Your task to perform on an android device: Check the news Image 0: 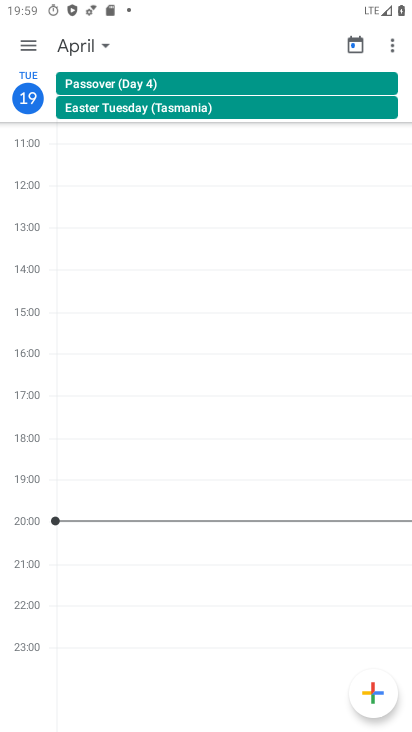
Step 0: press home button
Your task to perform on an android device: Check the news Image 1: 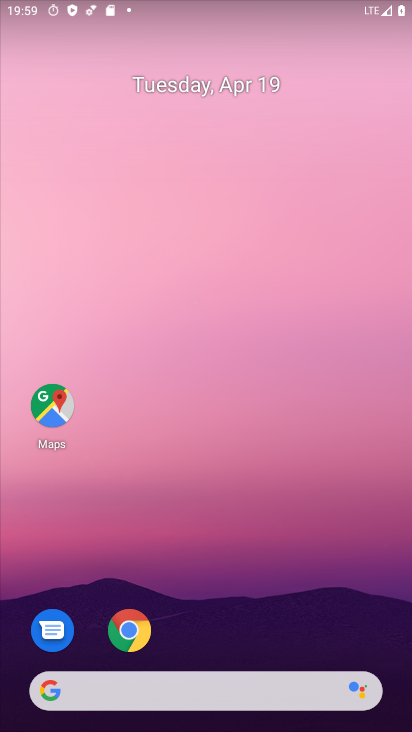
Step 1: task complete